Your task to perform on an android device: turn on wifi Image 0: 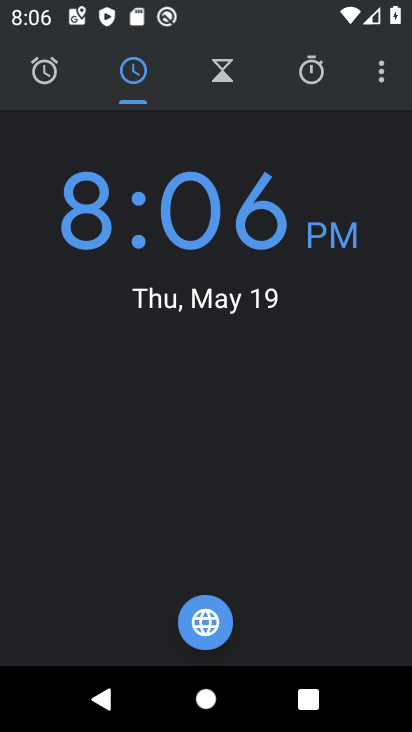
Step 0: press home button
Your task to perform on an android device: turn on wifi Image 1: 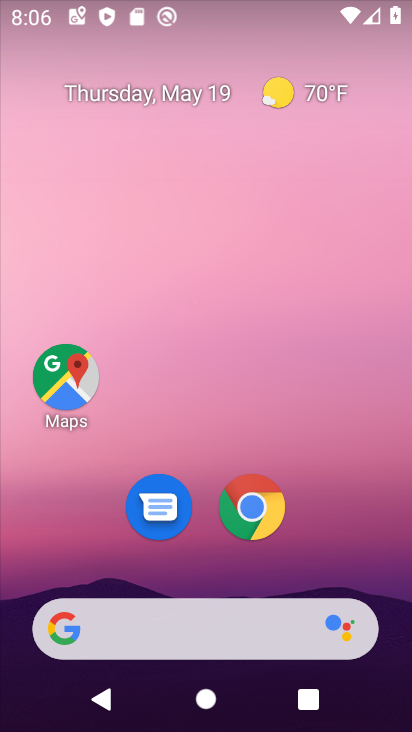
Step 1: drag from (204, 604) to (207, 198)
Your task to perform on an android device: turn on wifi Image 2: 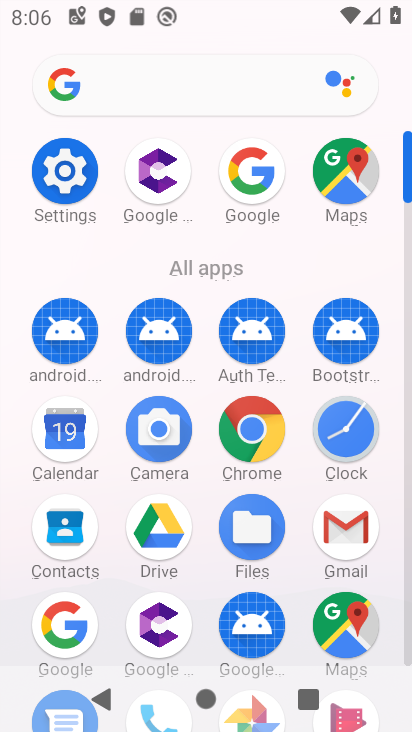
Step 2: click (85, 166)
Your task to perform on an android device: turn on wifi Image 3: 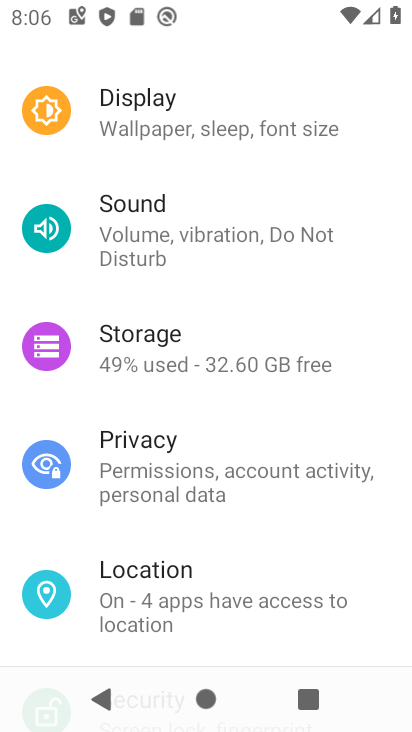
Step 3: drag from (160, 158) to (159, 527)
Your task to perform on an android device: turn on wifi Image 4: 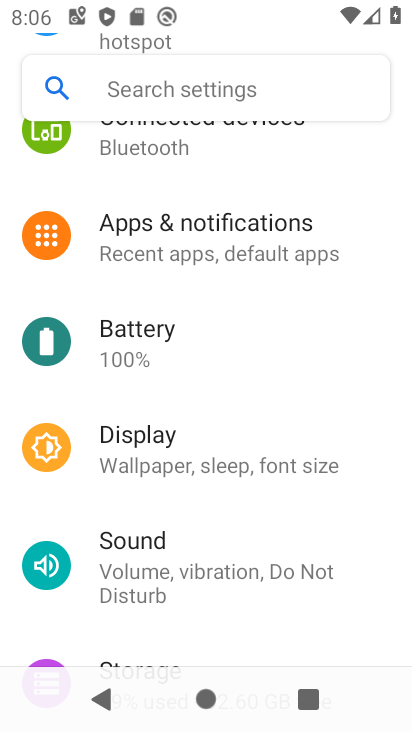
Step 4: drag from (148, 204) to (153, 488)
Your task to perform on an android device: turn on wifi Image 5: 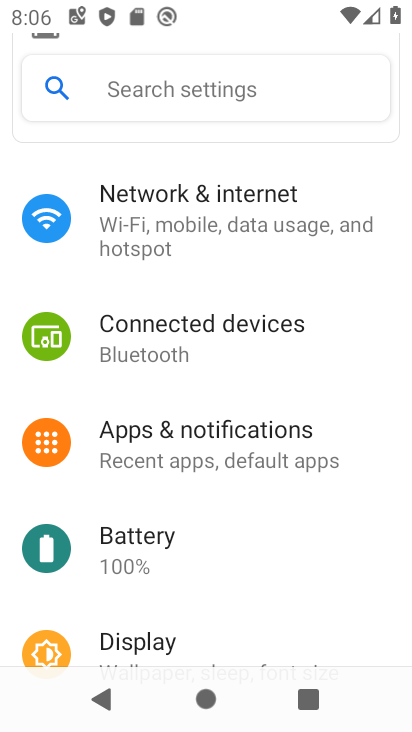
Step 5: click (142, 225)
Your task to perform on an android device: turn on wifi Image 6: 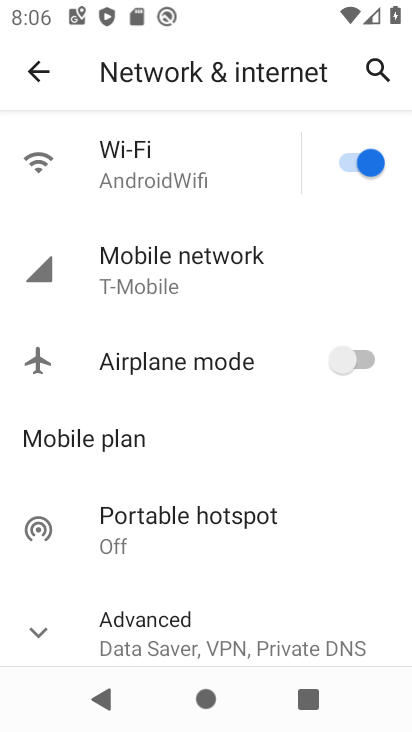
Step 6: task complete